Your task to perform on an android device: turn pop-ups on in chrome Image 0: 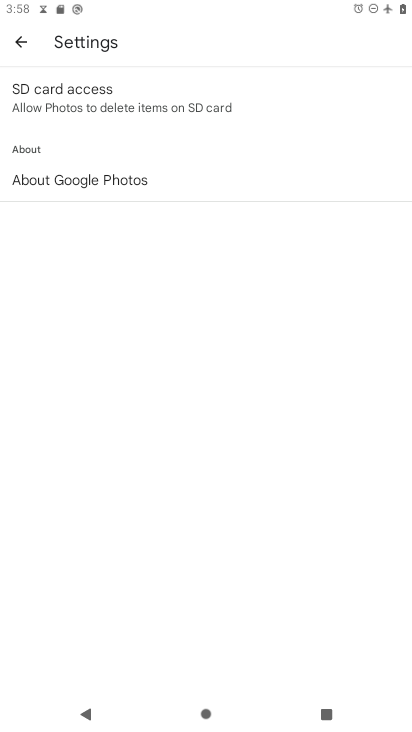
Step 0: press home button
Your task to perform on an android device: turn pop-ups on in chrome Image 1: 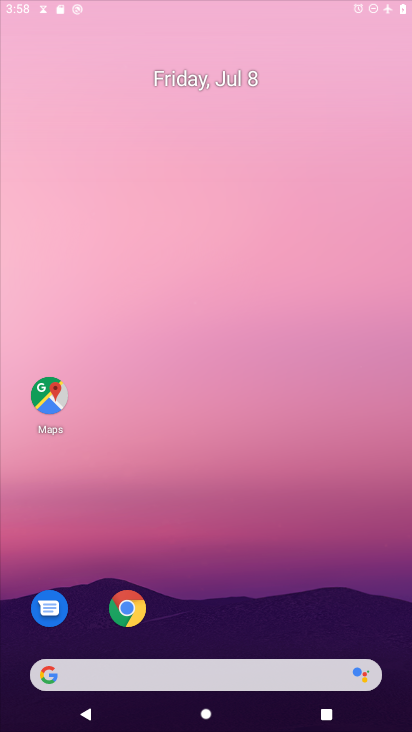
Step 1: drag from (313, 684) to (331, 3)
Your task to perform on an android device: turn pop-ups on in chrome Image 2: 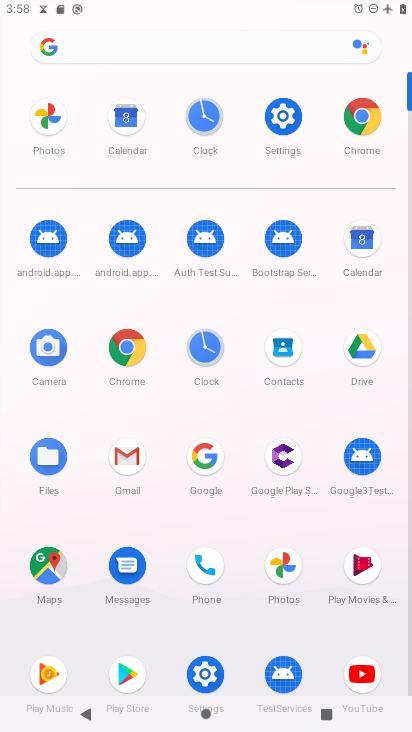
Step 2: click (134, 351)
Your task to perform on an android device: turn pop-ups on in chrome Image 3: 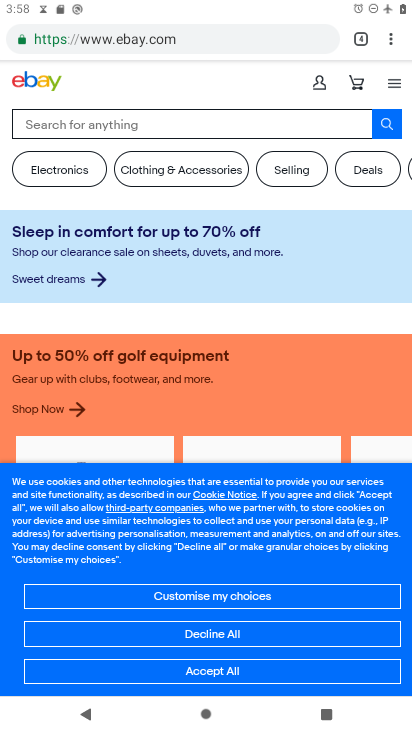
Step 3: drag from (393, 39) to (296, 437)
Your task to perform on an android device: turn pop-ups on in chrome Image 4: 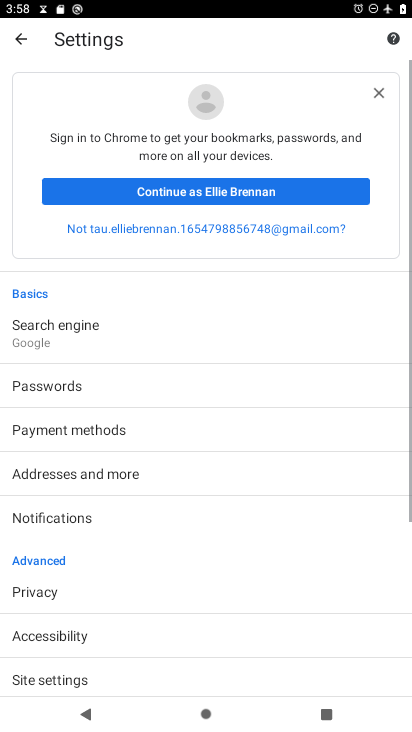
Step 4: drag from (247, 603) to (234, 285)
Your task to perform on an android device: turn pop-ups on in chrome Image 5: 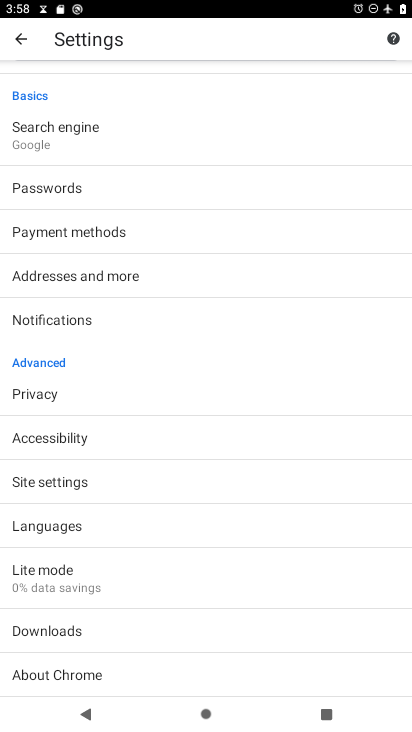
Step 5: click (99, 492)
Your task to perform on an android device: turn pop-ups on in chrome Image 6: 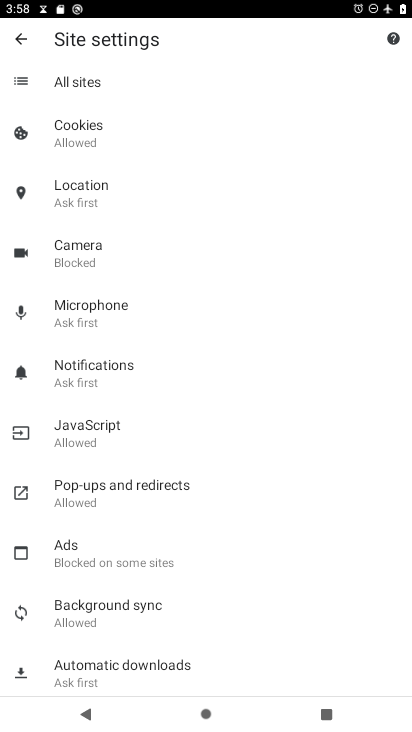
Step 6: click (116, 485)
Your task to perform on an android device: turn pop-ups on in chrome Image 7: 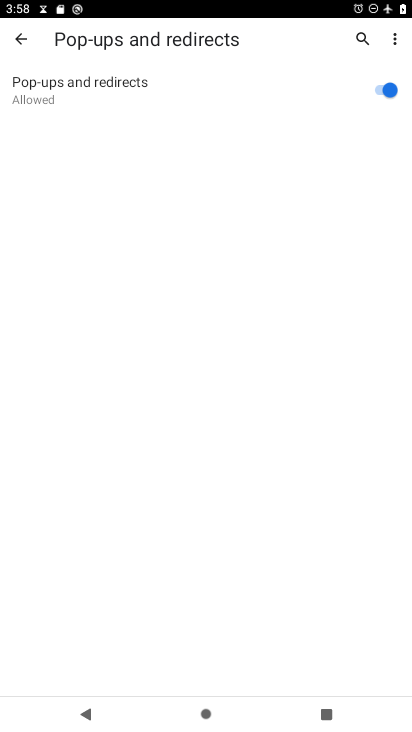
Step 7: task complete